Your task to perform on an android device: Open the map Image 0: 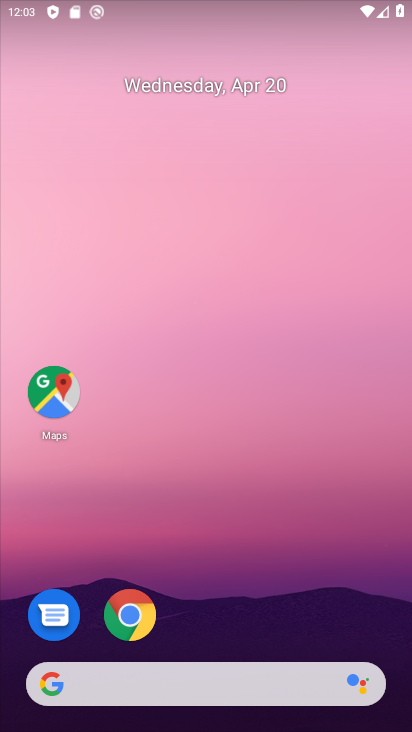
Step 0: click (54, 399)
Your task to perform on an android device: Open the map Image 1: 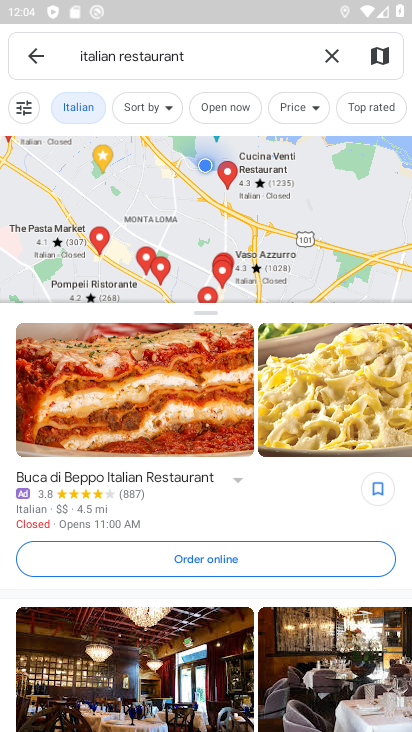
Step 1: task complete